Your task to perform on an android device: Add lenovo thinkpad to the cart on ebay.com Image 0: 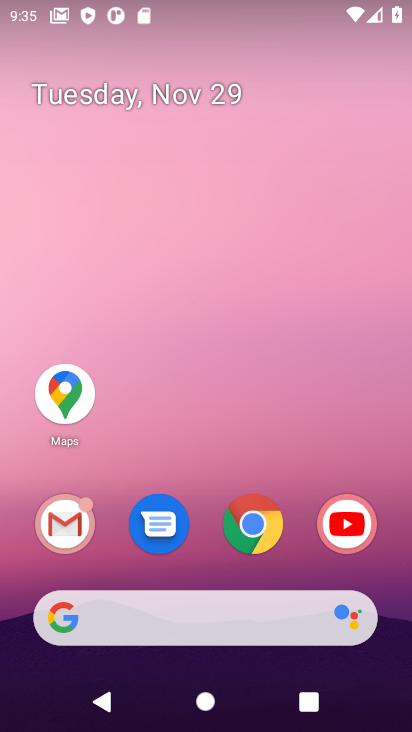
Step 0: click (253, 526)
Your task to perform on an android device: Add lenovo thinkpad to the cart on ebay.com Image 1: 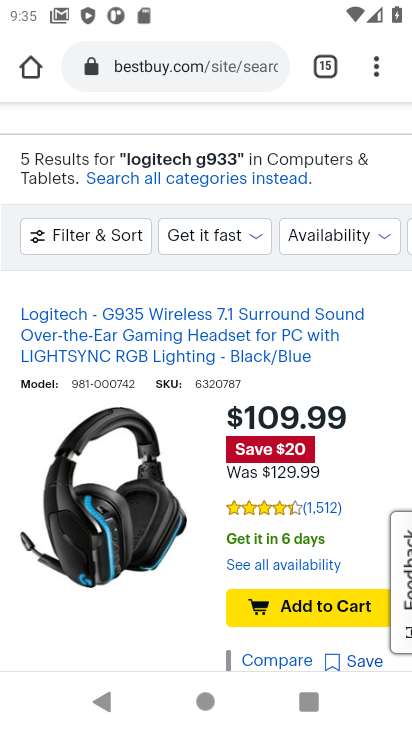
Step 1: click (124, 68)
Your task to perform on an android device: Add lenovo thinkpad to the cart on ebay.com Image 2: 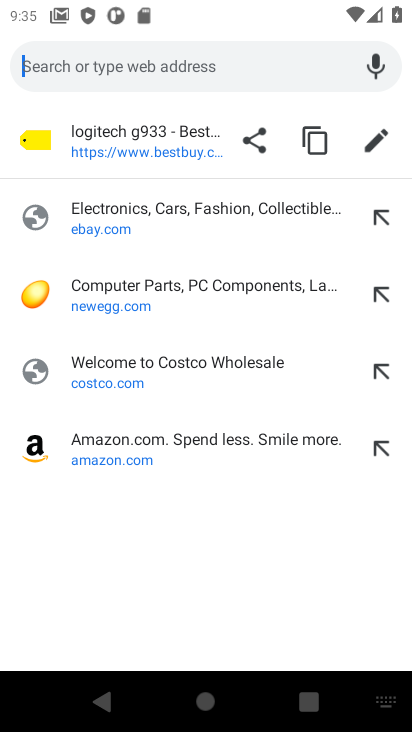
Step 2: click (92, 217)
Your task to perform on an android device: Add lenovo thinkpad to the cart on ebay.com Image 3: 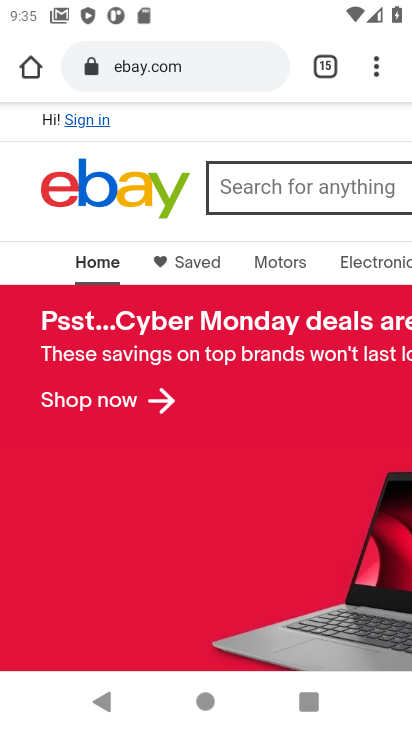
Step 3: drag from (290, 234) to (0, 226)
Your task to perform on an android device: Add lenovo thinkpad to the cart on ebay.com Image 4: 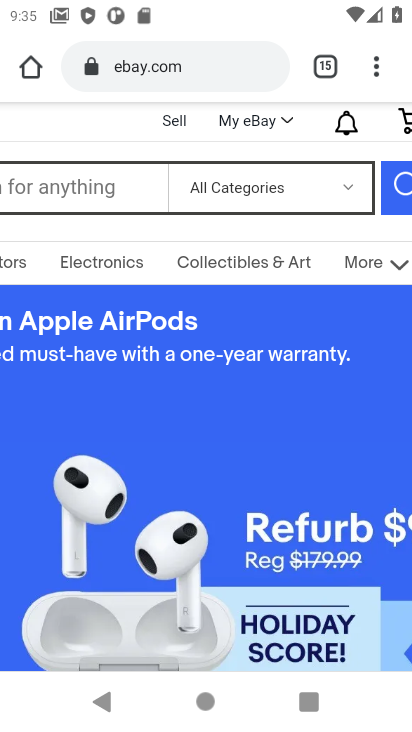
Step 4: drag from (305, 227) to (24, 232)
Your task to perform on an android device: Add lenovo thinkpad to the cart on ebay.com Image 5: 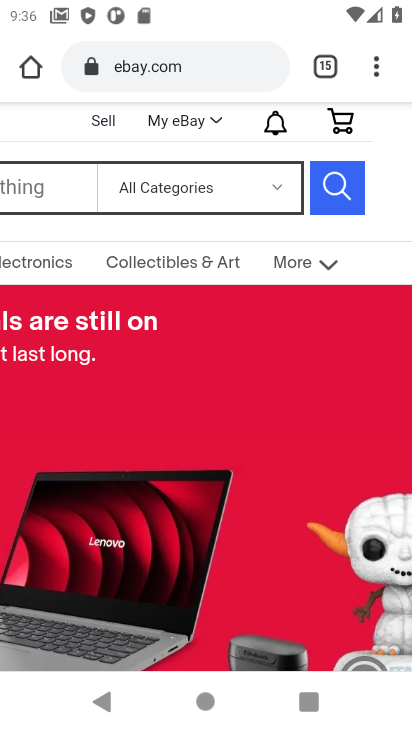
Step 5: click (18, 178)
Your task to perform on an android device: Add lenovo thinkpad to the cart on ebay.com Image 6: 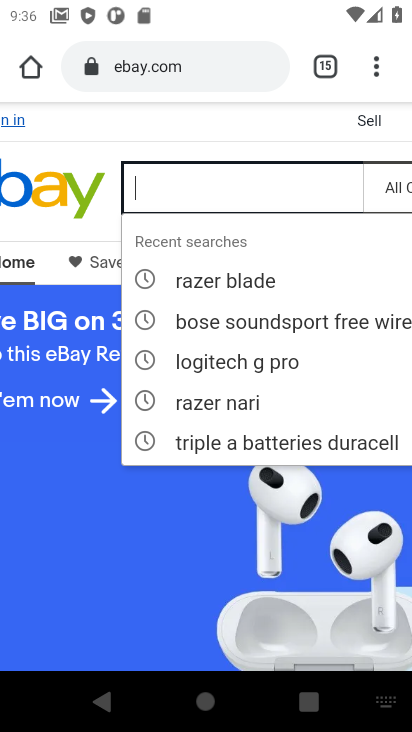
Step 6: type "lenovo thinkpad"
Your task to perform on an android device: Add lenovo thinkpad to the cart on ebay.com Image 7: 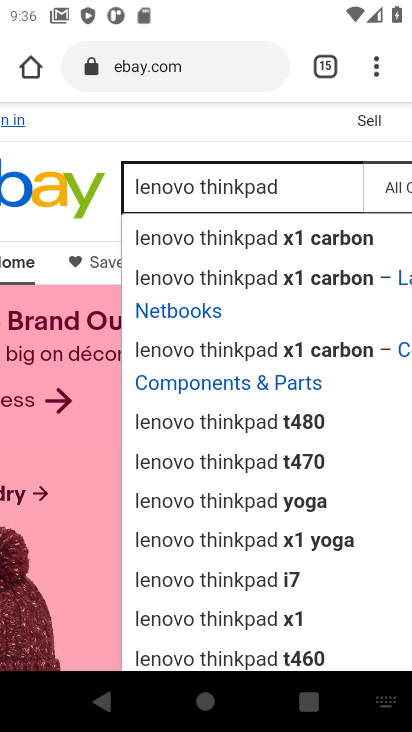
Step 7: drag from (218, 572) to (217, 400)
Your task to perform on an android device: Add lenovo thinkpad to the cart on ebay.com Image 8: 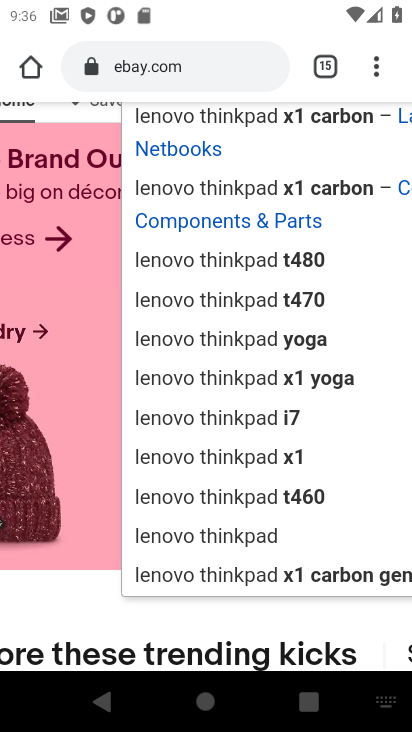
Step 8: click (199, 540)
Your task to perform on an android device: Add lenovo thinkpad to the cart on ebay.com Image 9: 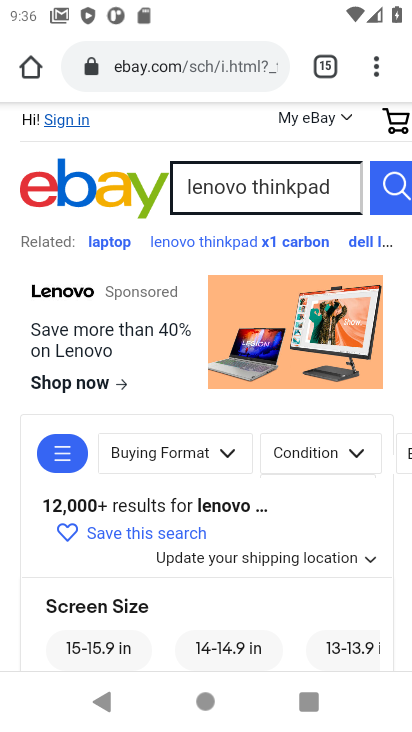
Step 9: drag from (288, 566) to (252, 181)
Your task to perform on an android device: Add lenovo thinkpad to the cart on ebay.com Image 10: 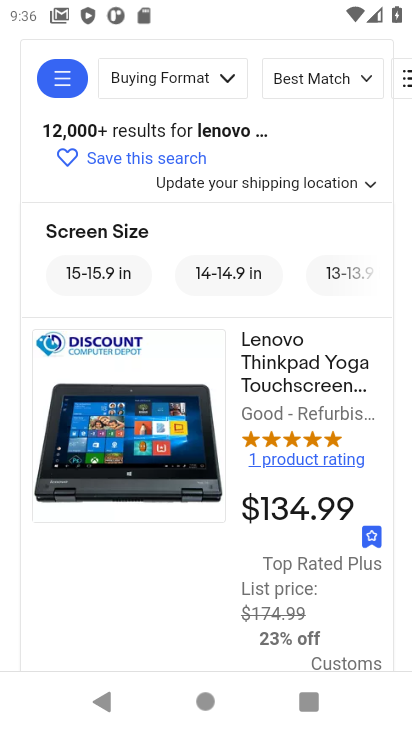
Step 10: click (263, 372)
Your task to perform on an android device: Add lenovo thinkpad to the cart on ebay.com Image 11: 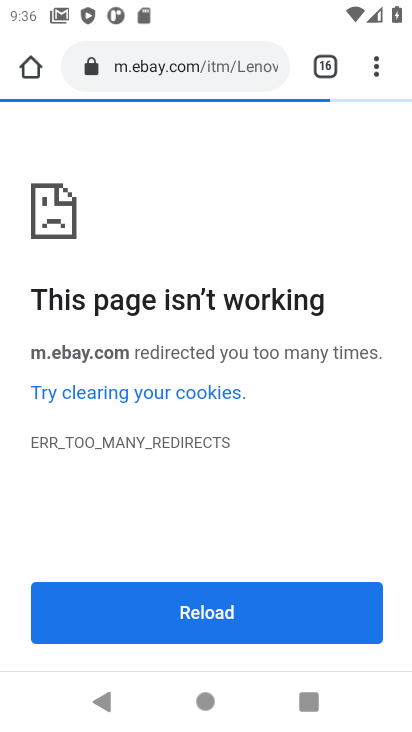
Step 11: task complete